Your task to perform on an android device: delete location history Image 0: 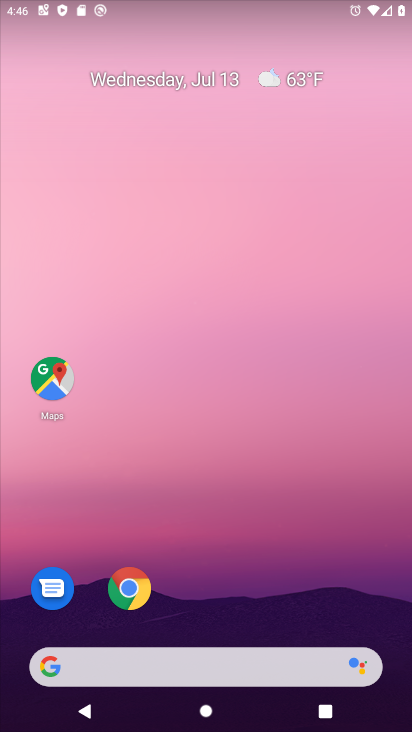
Step 0: drag from (201, 662) to (261, 238)
Your task to perform on an android device: delete location history Image 1: 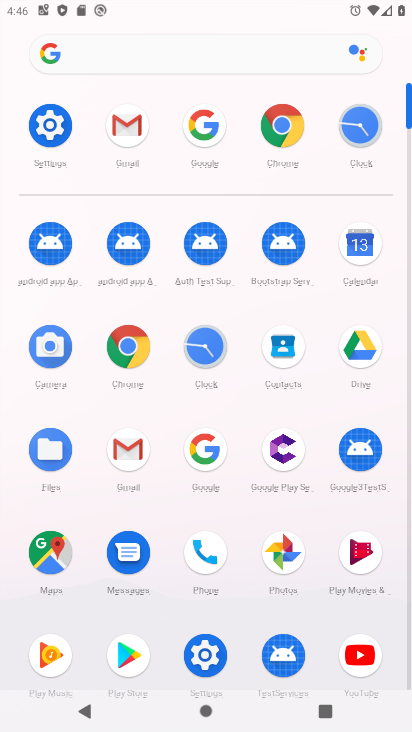
Step 1: click (50, 551)
Your task to perform on an android device: delete location history Image 2: 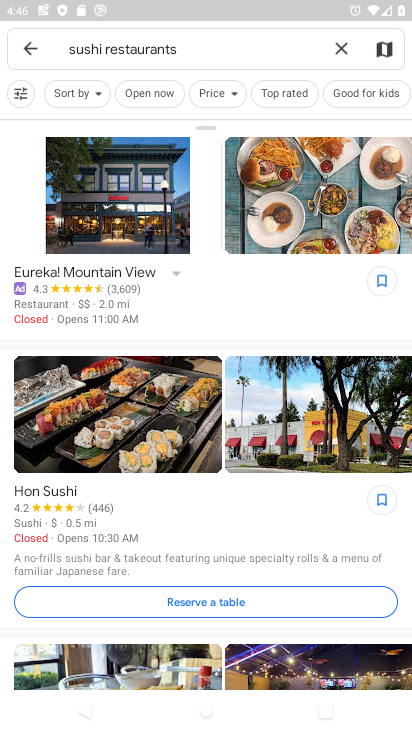
Step 2: press back button
Your task to perform on an android device: delete location history Image 3: 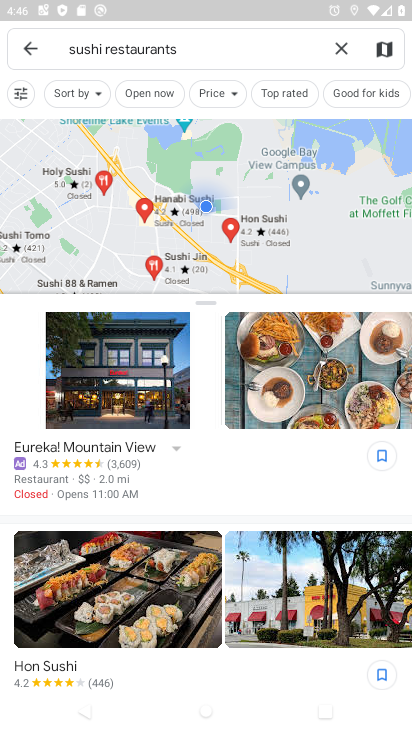
Step 3: press back button
Your task to perform on an android device: delete location history Image 4: 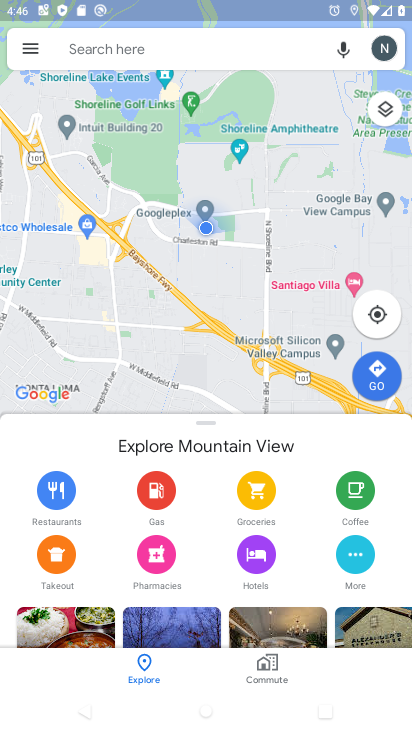
Step 4: click (30, 53)
Your task to perform on an android device: delete location history Image 5: 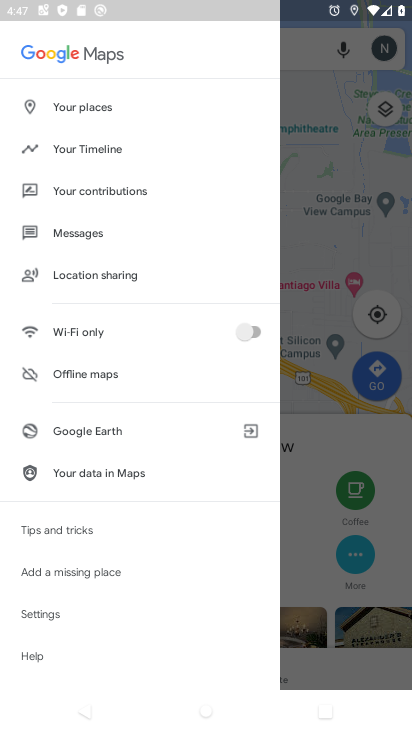
Step 5: click (50, 614)
Your task to perform on an android device: delete location history Image 6: 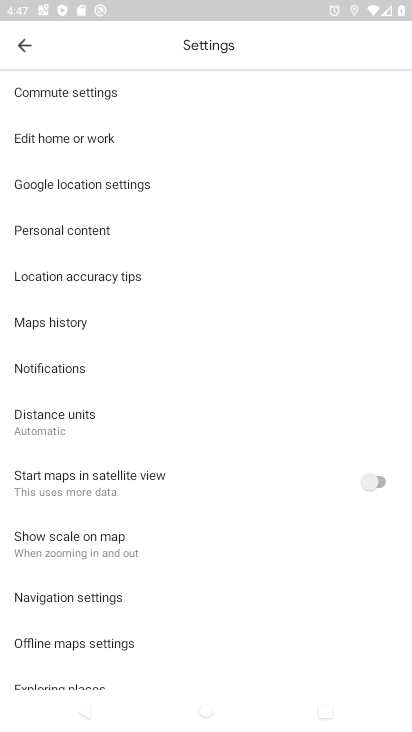
Step 6: click (65, 239)
Your task to perform on an android device: delete location history Image 7: 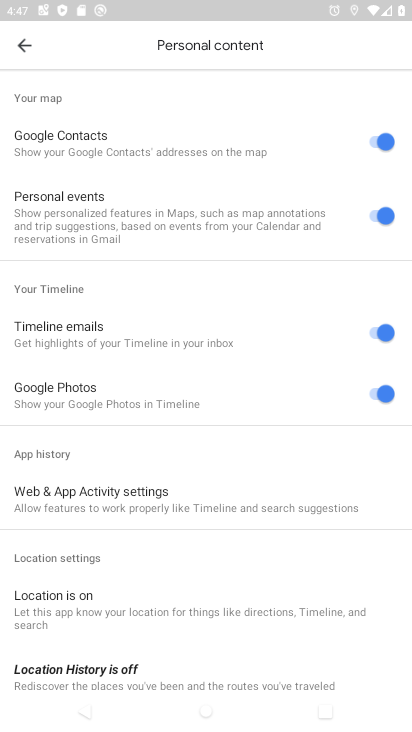
Step 7: drag from (86, 551) to (131, 384)
Your task to perform on an android device: delete location history Image 8: 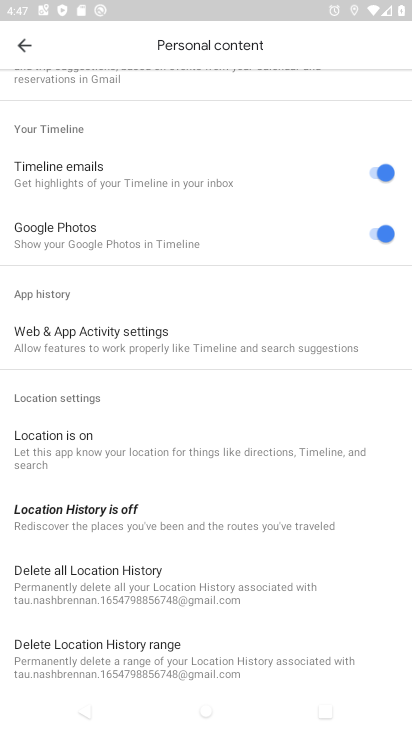
Step 8: drag from (101, 610) to (196, 454)
Your task to perform on an android device: delete location history Image 9: 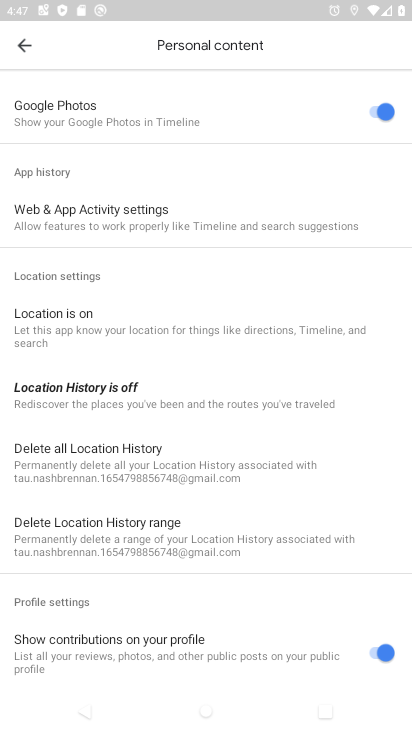
Step 9: click (143, 446)
Your task to perform on an android device: delete location history Image 10: 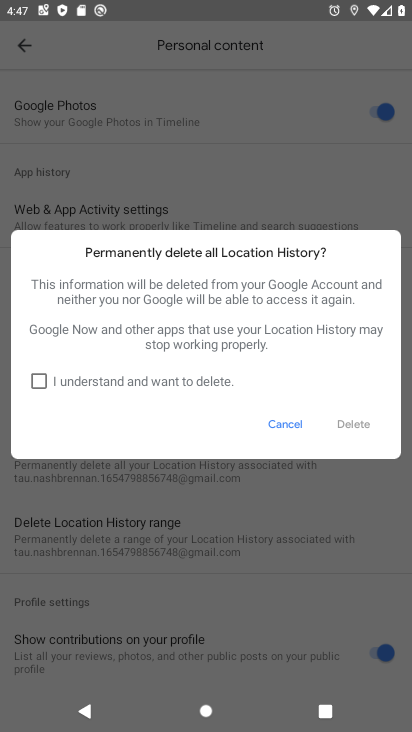
Step 10: click (41, 382)
Your task to perform on an android device: delete location history Image 11: 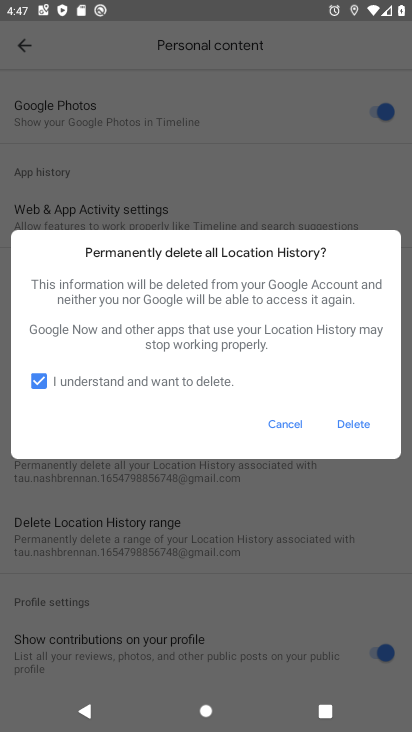
Step 11: click (358, 424)
Your task to perform on an android device: delete location history Image 12: 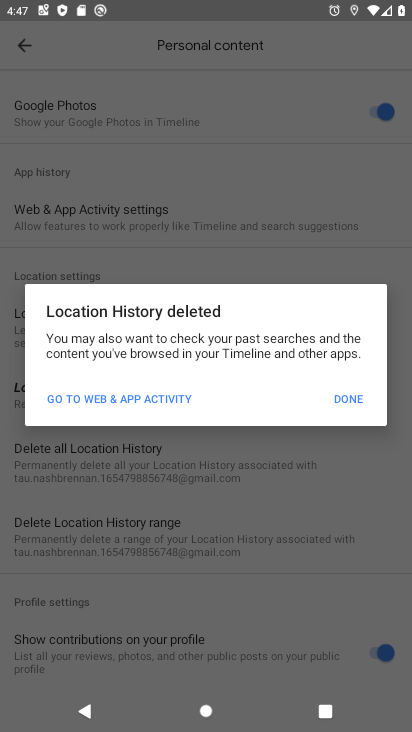
Step 12: click (349, 397)
Your task to perform on an android device: delete location history Image 13: 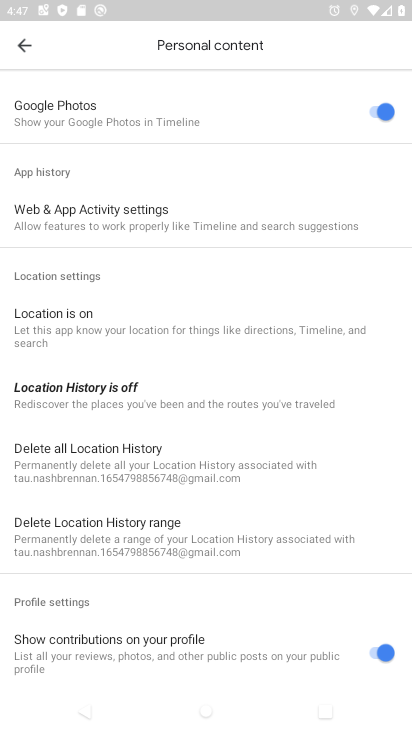
Step 13: task complete